Your task to perform on an android device: refresh tabs in the chrome app Image 0: 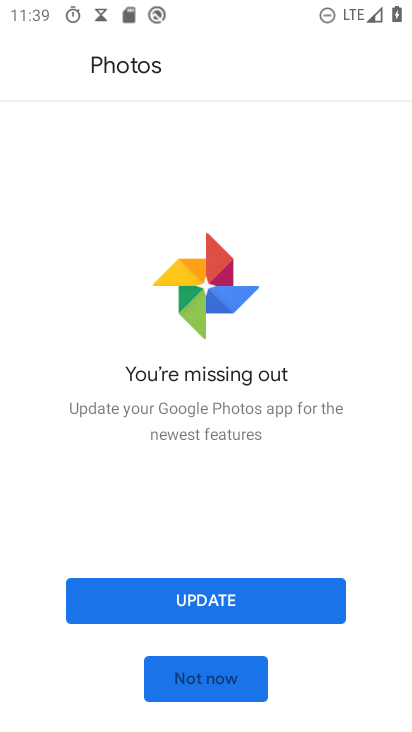
Step 0: press home button
Your task to perform on an android device: refresh tabs in the chrome app Image 1: 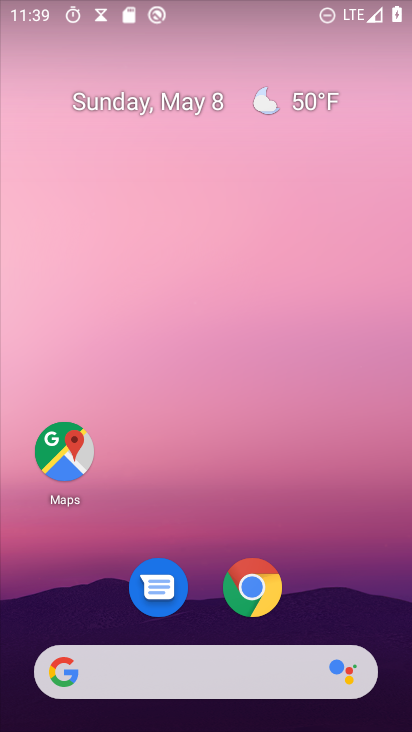
Step 1: click (262, 587)
Your task to perform on an android device: refresh tabs in the chrome app Image 2: 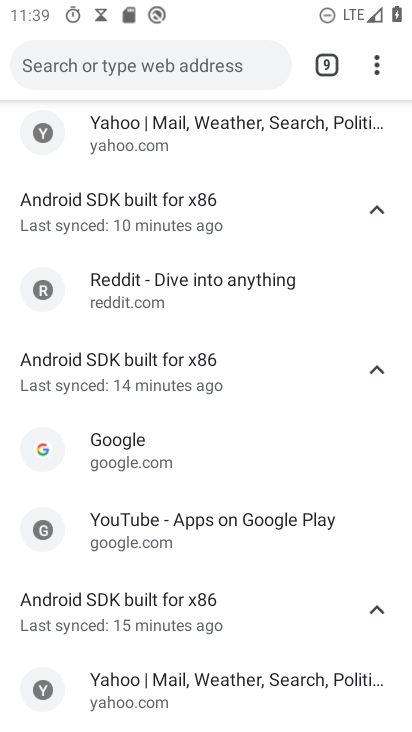
Step 2: click (373, 65)
Your task to perform on an android device: refresh tabs in the chrome app Image 3: 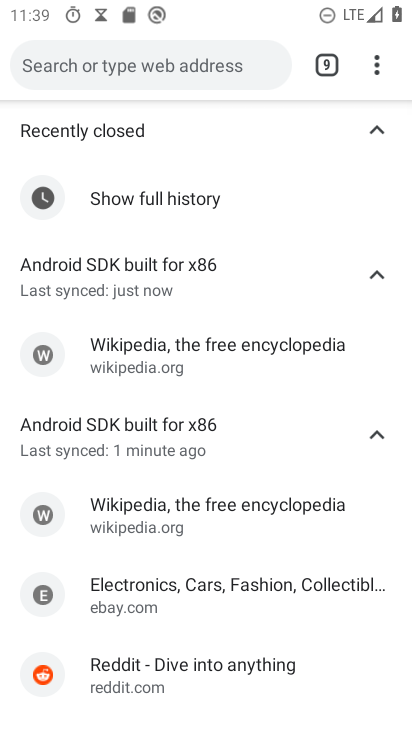
Step 3: click (373, 65)
Your task to perform on an android device: refresh tabs in the chrome app Image 4: 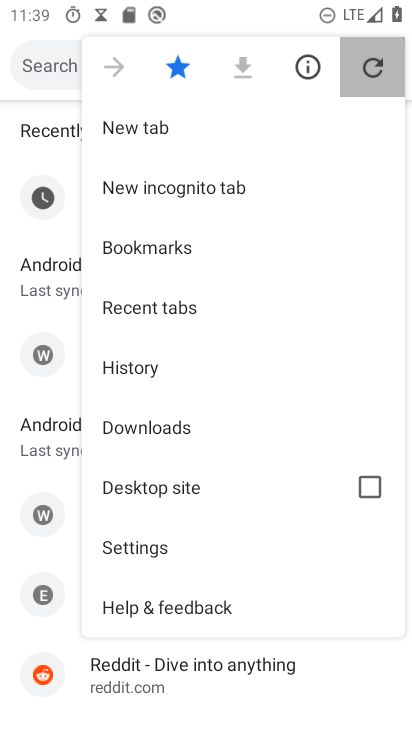
Step 4: click (372, 68)
Your task to perform on an android device: refresh tabs in the chrome app Image 5: 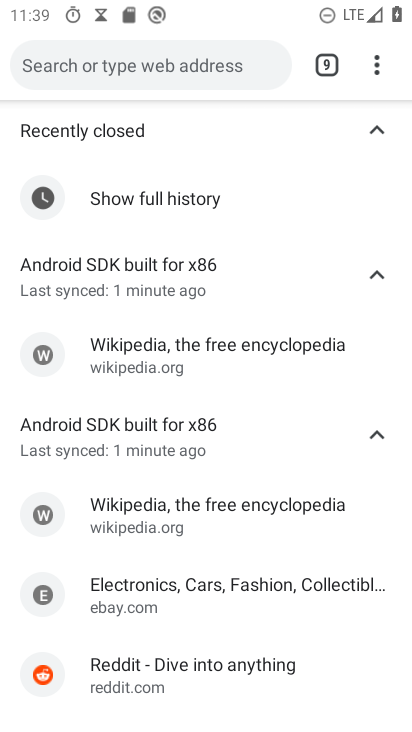
Step 5: task complete